Your task to perform on an android device: toggle pop-ups in chrome Image 0: 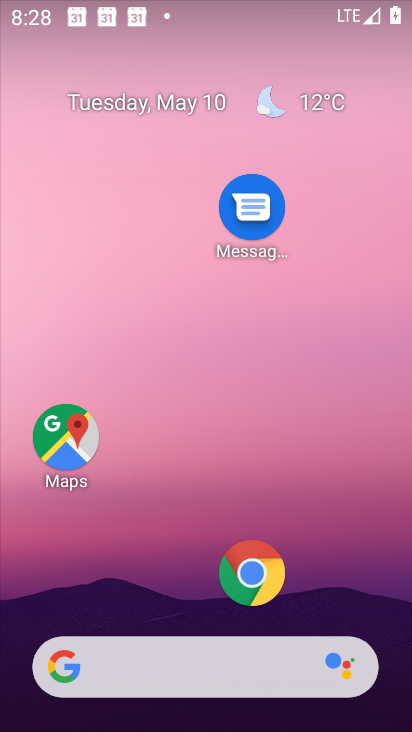
Step 0: click (253, 578)
Your task to perform on an android device: toggle pop-ups in chrome Image 1: 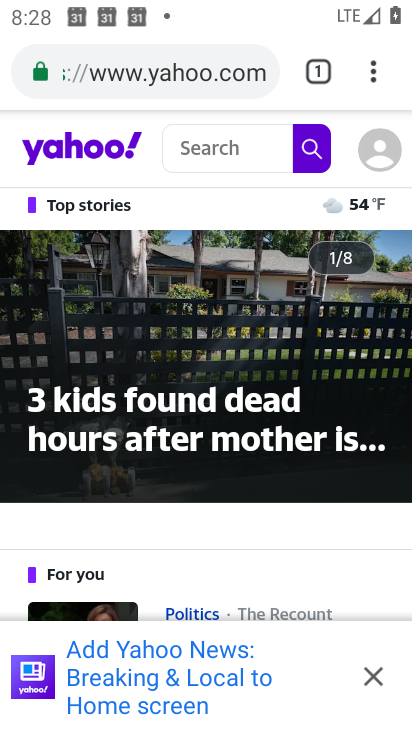
Step 1: click (366, 69)
Your task to perform on an android device: toggle pop-ups in chrome Image 2: 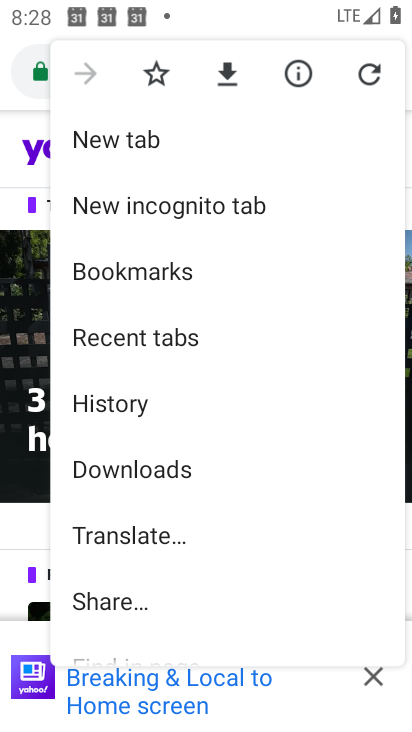
Step 2: drag from (130, 424) to (178, 111)
Your task to perform on an android device: toggle pop-ups in chrome Image 3: 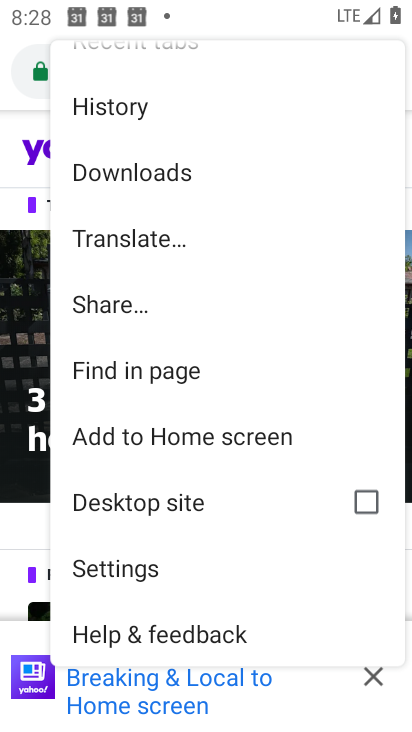
Step 3: click (160, 571)
Your task to perform on an android device: toggle pop-ups in chrome Image 4: 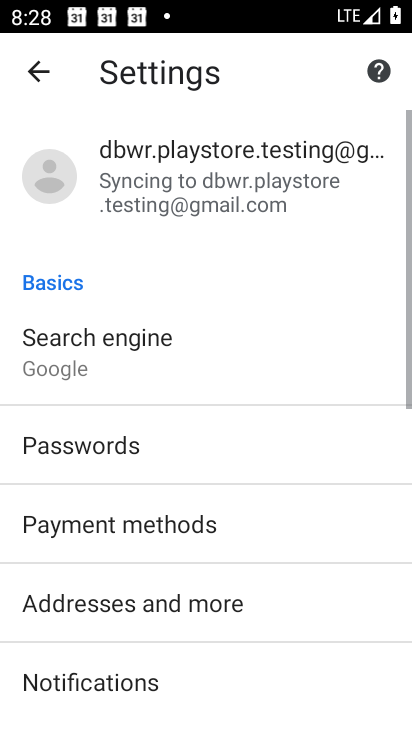
Step 4: drag from (212, 549) to (250, 58)
Your task to perform on an android device: toggle pop-ups in chrome Image 5: 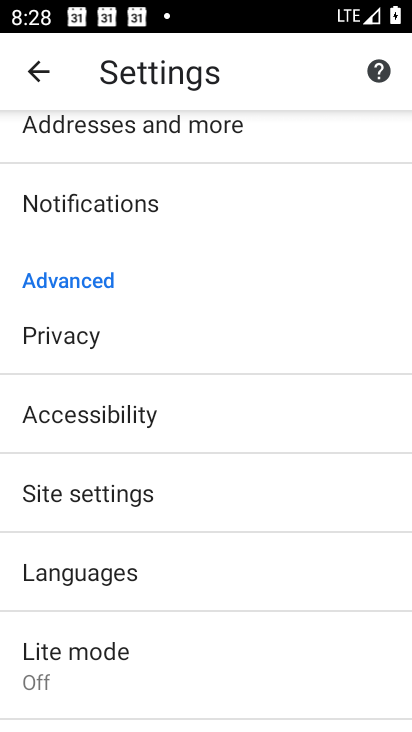
Step 5: click (62, 482)
Your task to perform on an android device: toggle pop-ups in chrome Image 6: 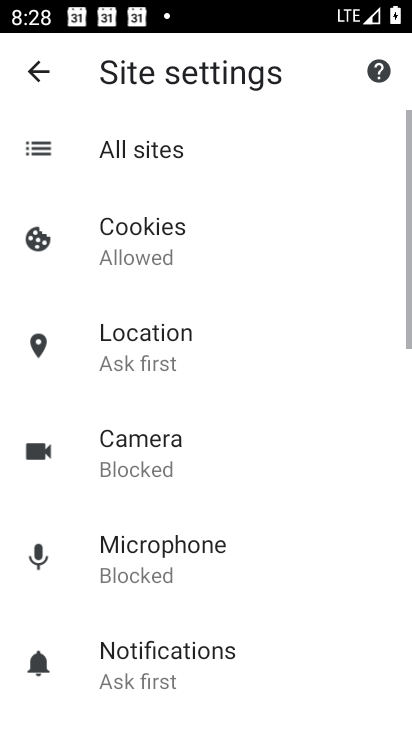
Step 6: drag from (260, 575) to (261, 113)
Your task to perform on an android device: toggle pop-ups in chrome Image 7: 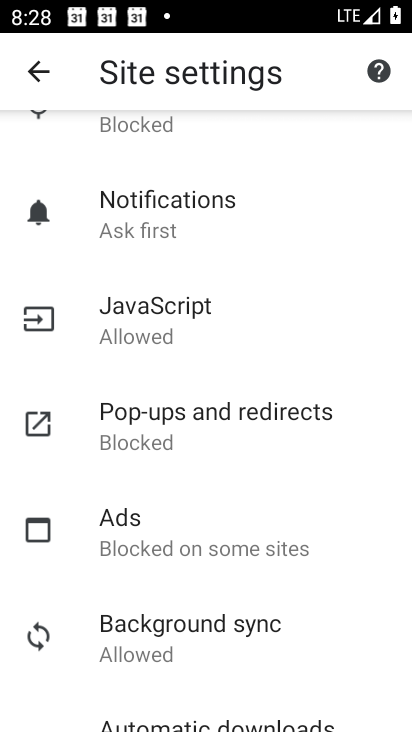
Step 7: click (103, 453)
Your task to perform on an android device: toggle pop-ups in chrome Image 8: 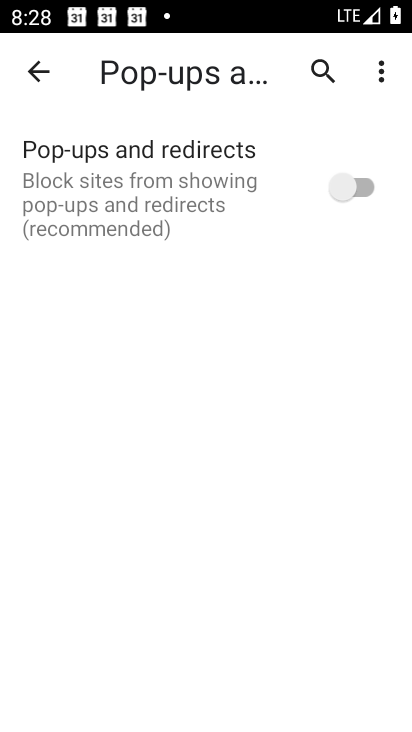
Step 8: click (354, 185)
Your task to perform on an android device: toggle pop-ups in chrome Image 9: 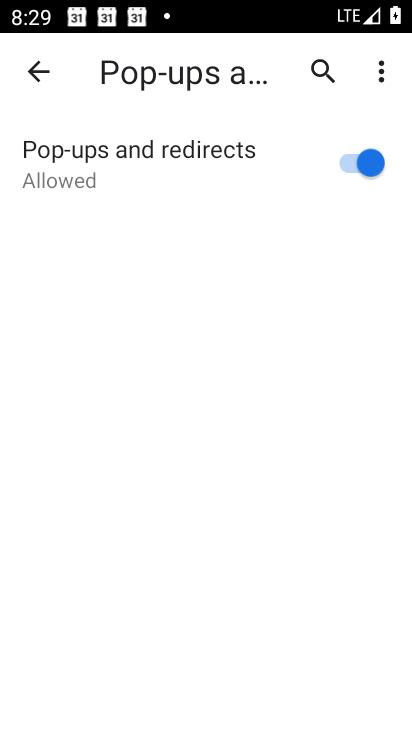
Step 9: task complete